Your task to perform on an android device: turn off javascript in the chrome app Image 0: 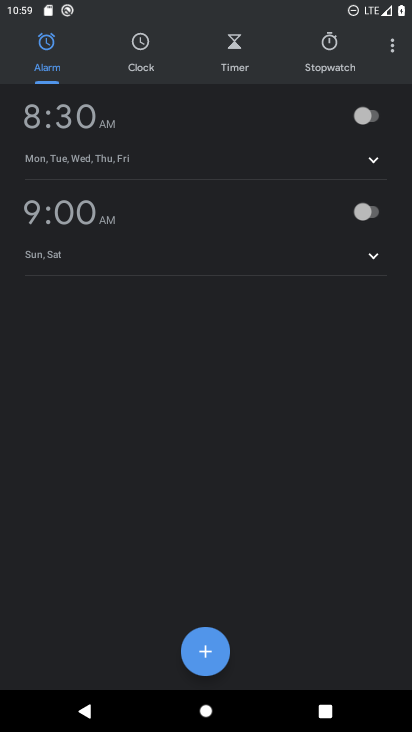
Step 0: press home button
Your task to perform on an android device: turn off javascript in the chrome app Image 1: 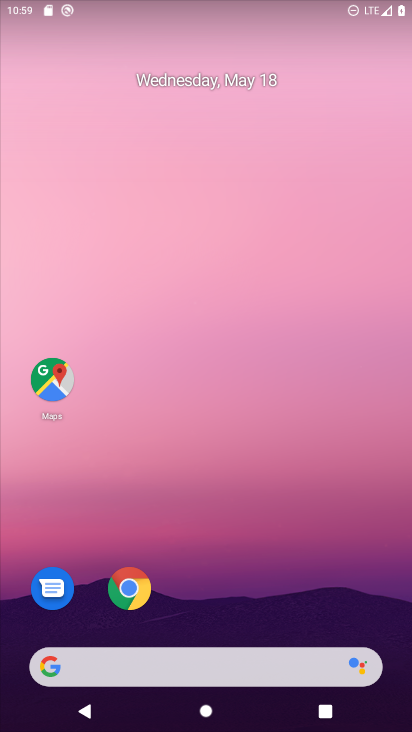
Step 1: click (131, 593)
Your task to perform on an android device: turn off javascript in the chrome app Image 2: 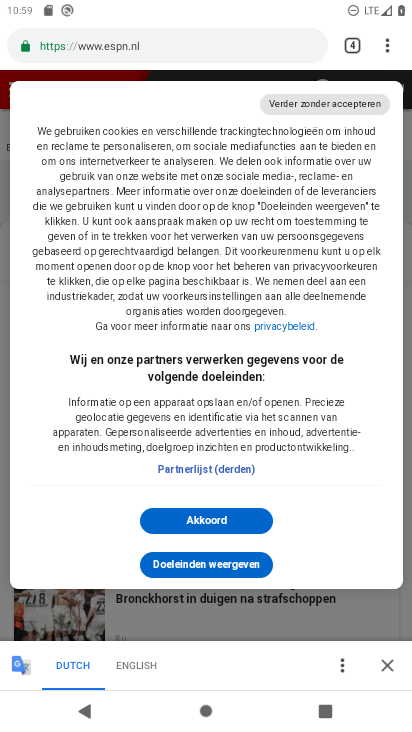
Step 2: click (390, 42)
Your task to perform on an android device: turn off javascript in the chrome app Image 3: 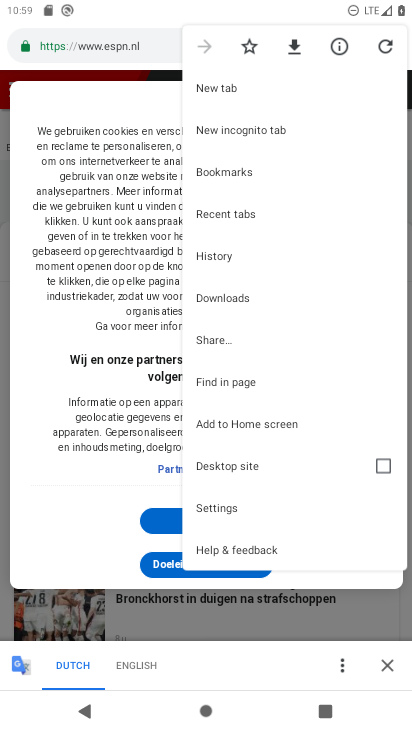
Step 3: click (212, 509)
Your task to perform on an android device: turn off javascript in the chrome app Image 4: 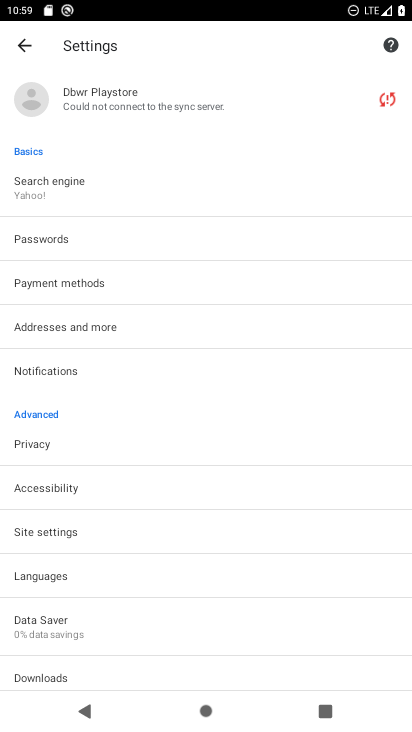
Step 4: click (41, 534)
Your task to perform on an android device: turn off javascript in the chrome app Image 5: 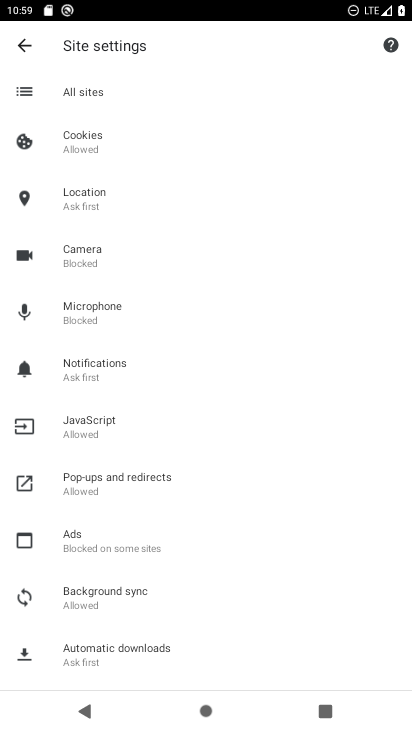
Step 5: click (84, 436)
Your task to perform on an android device: turn off javascript in the chrome app Image 6: 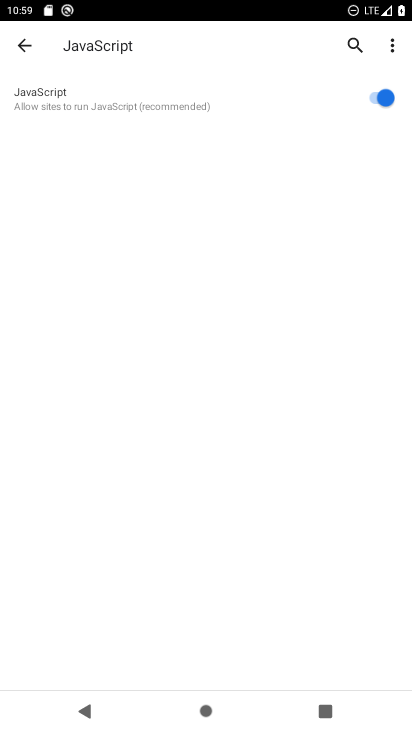
Step 6: click (383, 93)
Your task to perform on an android device: turn off javascript in the chrome app Image 7: 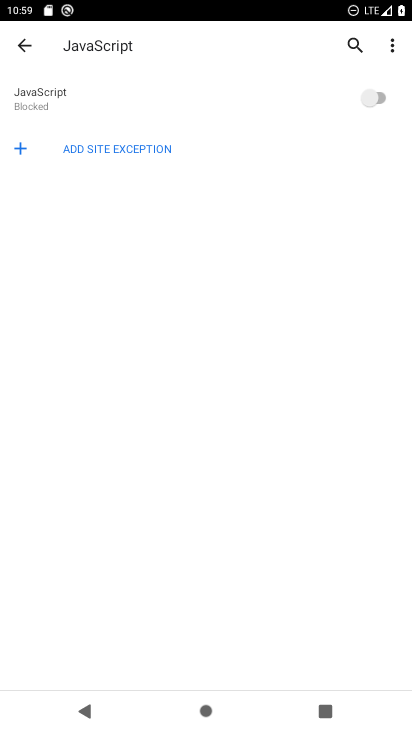
Step 7: task complete